Your task to perform on an android device: Turn off the flashlight Image 0: 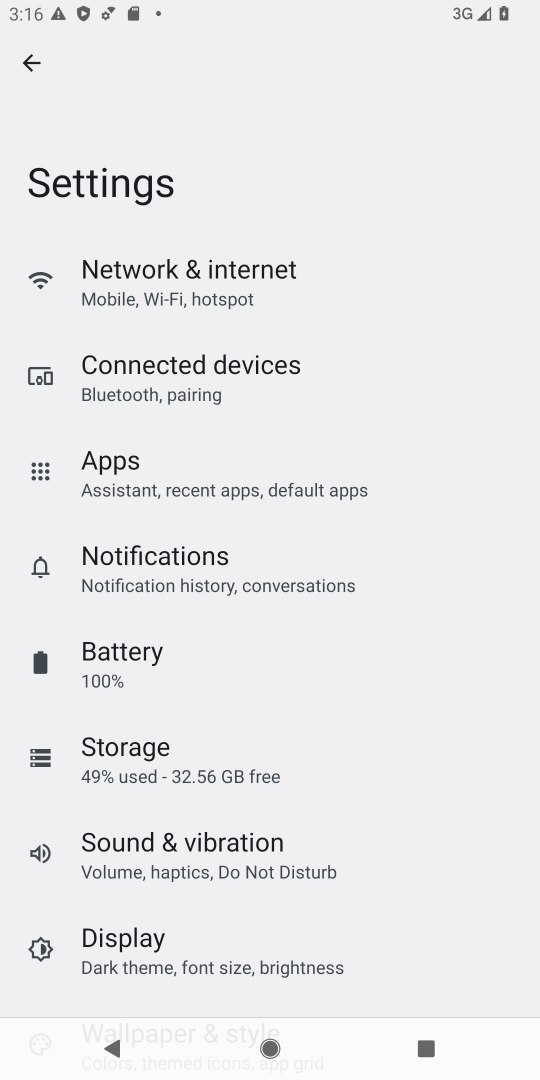
Step 0: press home button
Your task to perform on an android device: Turn off the flashlight Image 1: 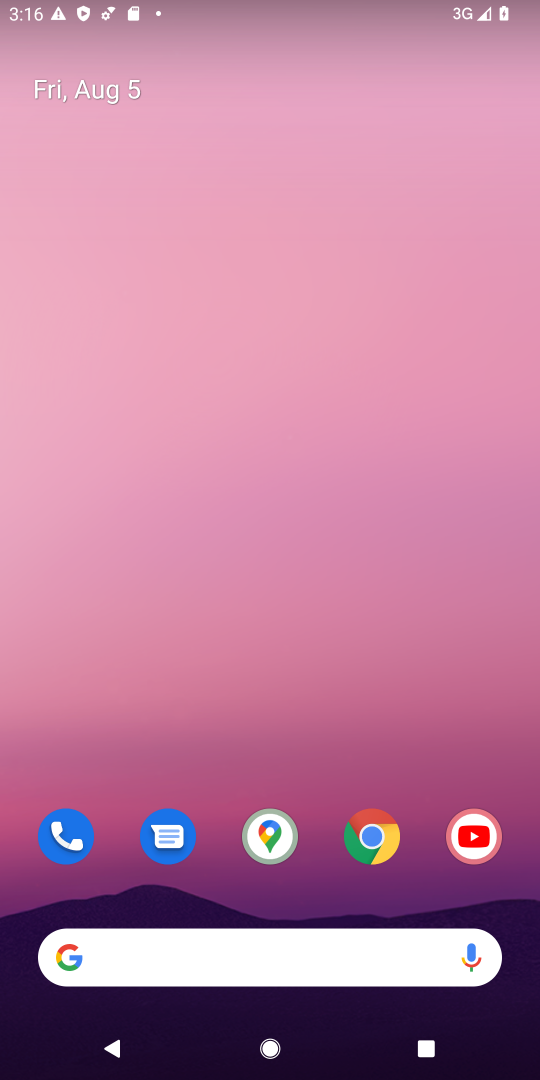
Step 1: drag from (221, 933) to (213, 93)
Your task to perform on an android device: Turn off the flashlight Image 2: 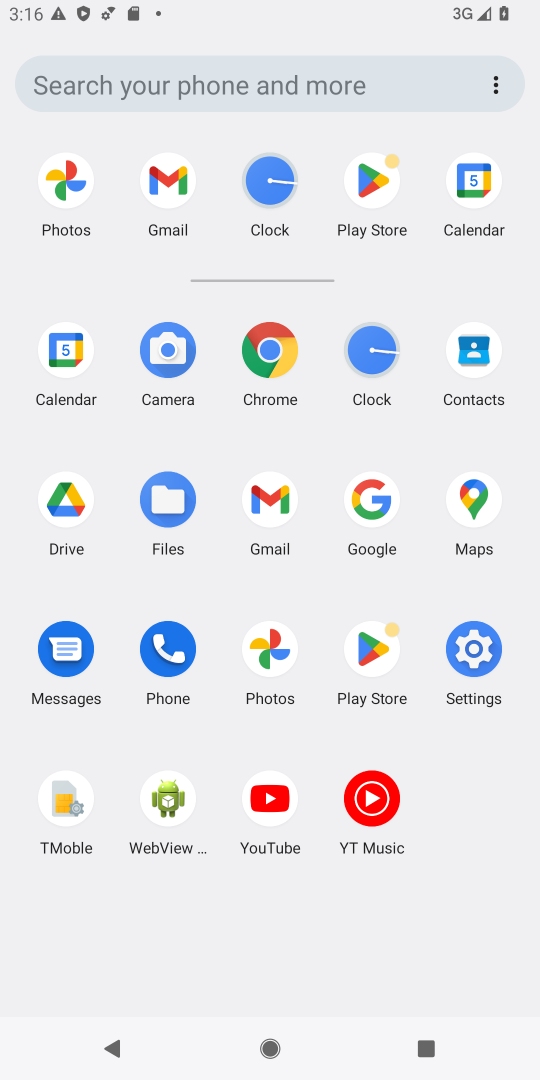
Step 2: click (474, 669)
Your task to perform on an android device: Turn off the flashlight Image 3: 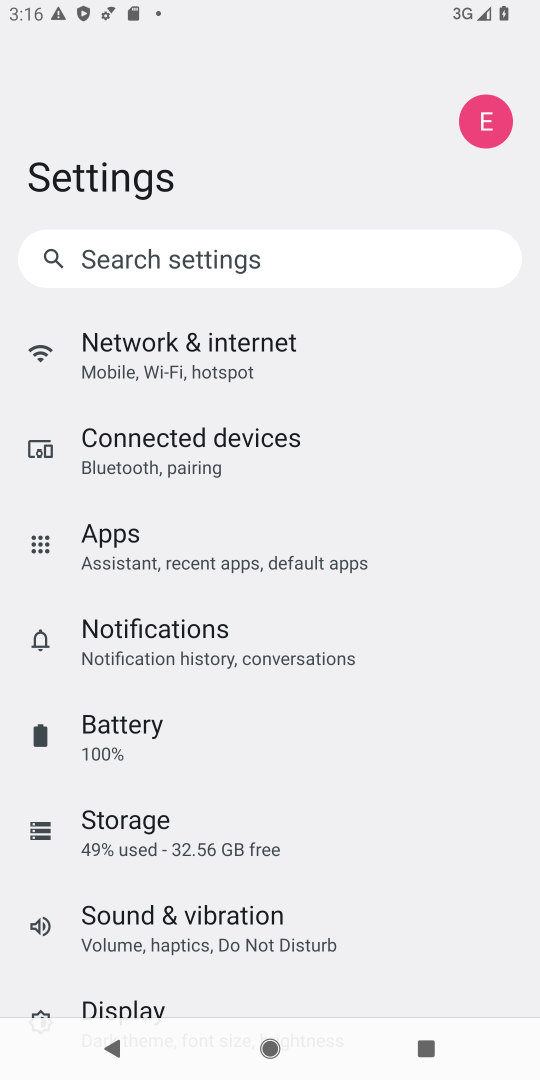
Step 3: task complete